Your task to perform on an android device: toggle notification dots Image 0: 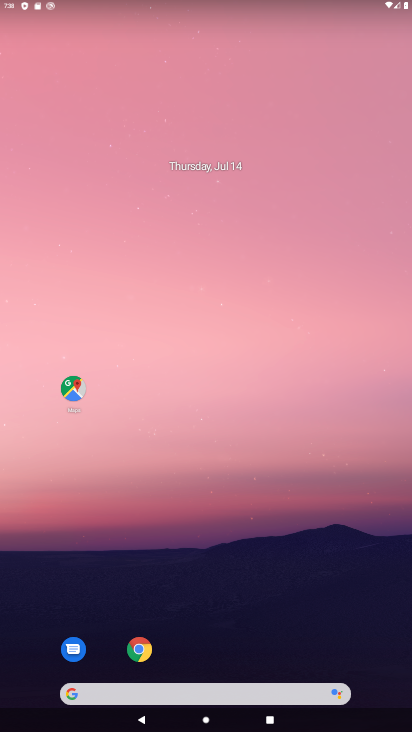
Step 0: drag from (203, 672) to (289, 96)
Your task to perform on an android device: toggle notification dots Image 1: 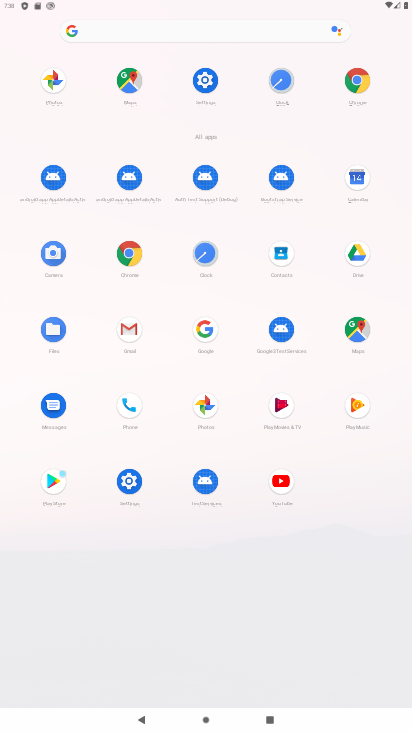
Step 1: click (139, 495)
Your task to perform on an android device: toggle notification dots Image 2: 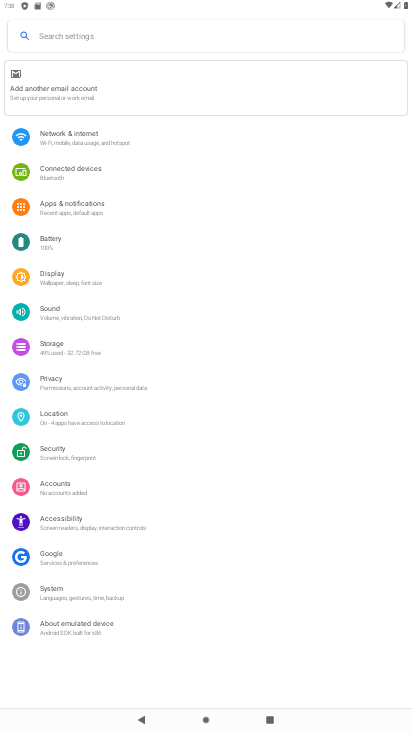
Step 2: click (93, 211)
Your task to perform on an android device: toggle notification dots Image 3: 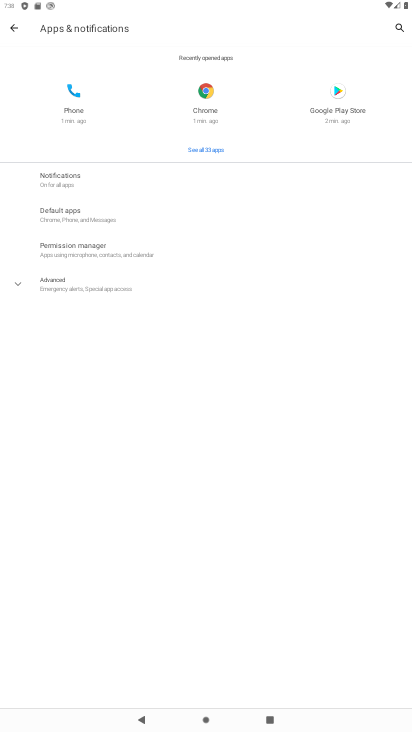
Step 3: click (82, 181)
Your task to perform on an android device: toggle notification dots Image 4: 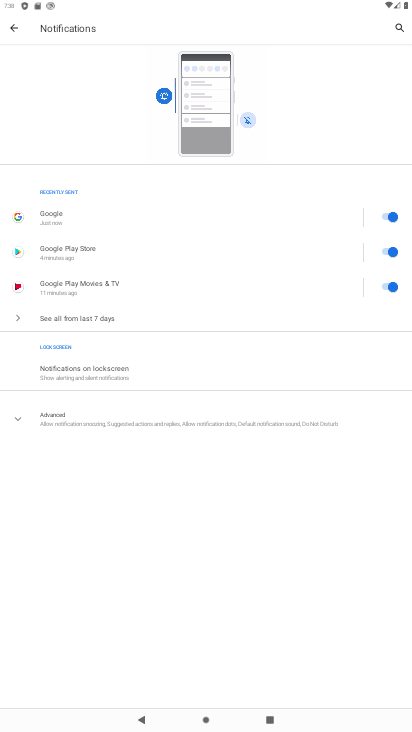
Step 4: click (111, 423)
Your task to perform on an android device: toggle notification dots Image 5: 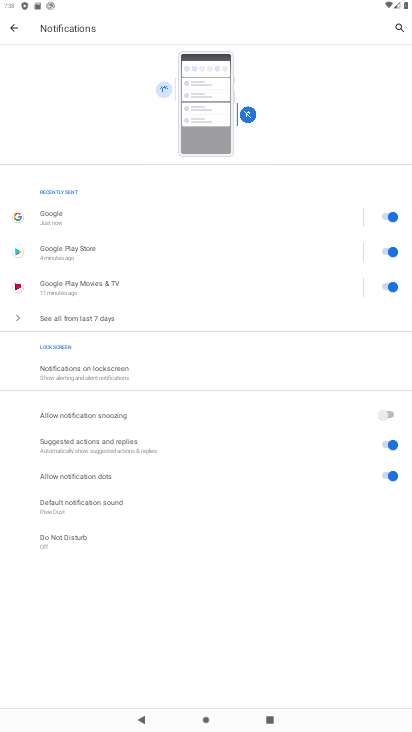
Step 5: click (370, 473)
Your task to perform on an android device: toggle notification dots Image 6: 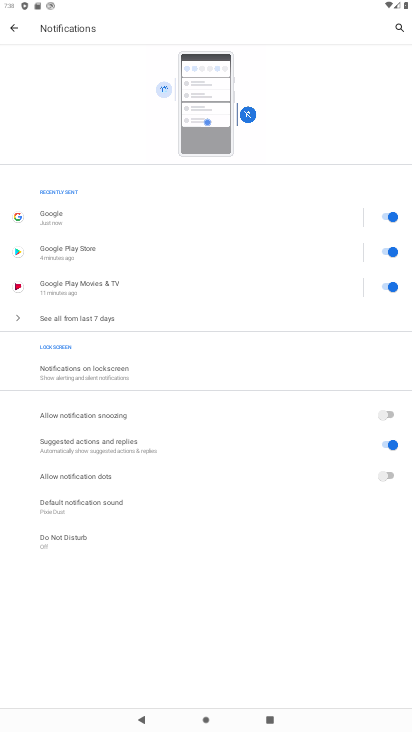
Step 6: task complete